Your task to perform on an android device: Is it going to rain today? Image 0: 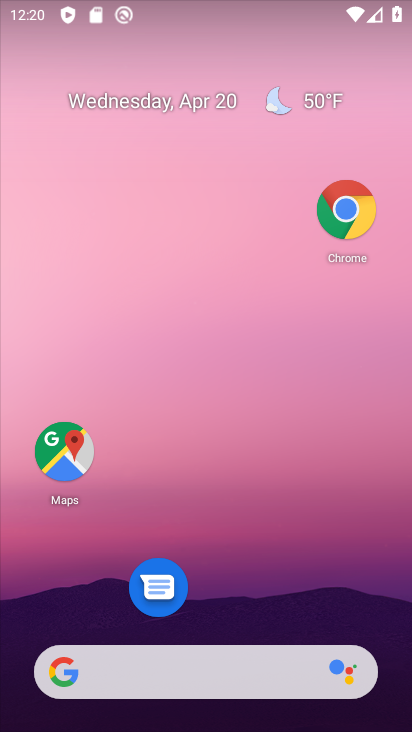
Step 0: click (317, 100)
Your task to perform on an android device: Is it going to rain today? Image 1: 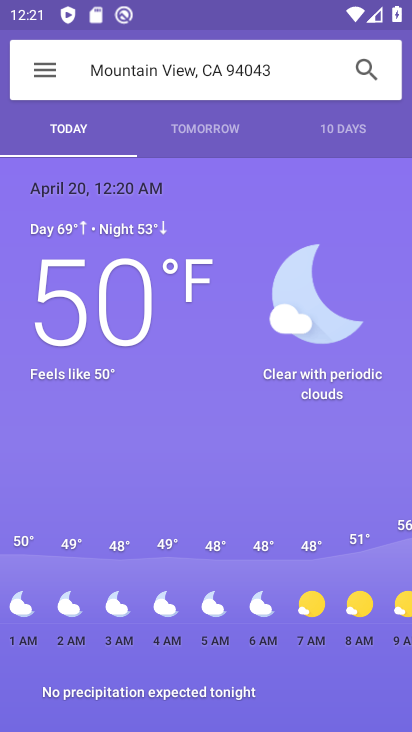
Step 1: task complete